Your task to perform on an android device: Open privacy settings Image 0: 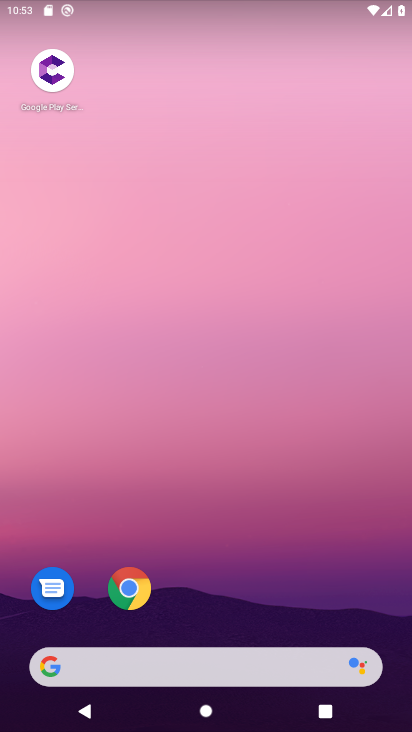
Step 0: press home button
Your task to perform on an android device: Open privacy settings Image 1: 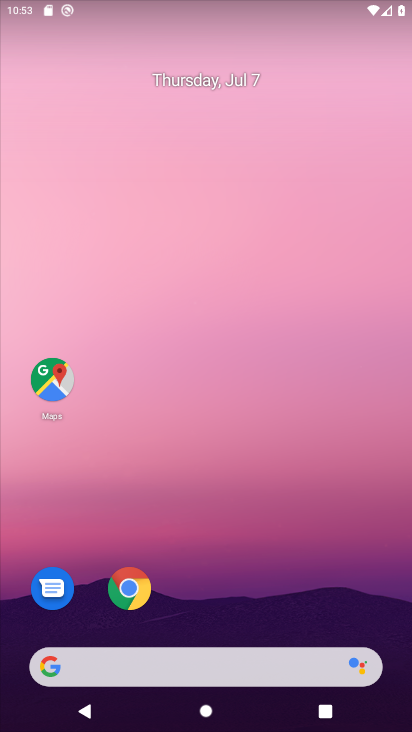
Step 1: drag from (154, 665) to (300, 84)
Your task to perform on an android device: Open privacy settings Image 2: 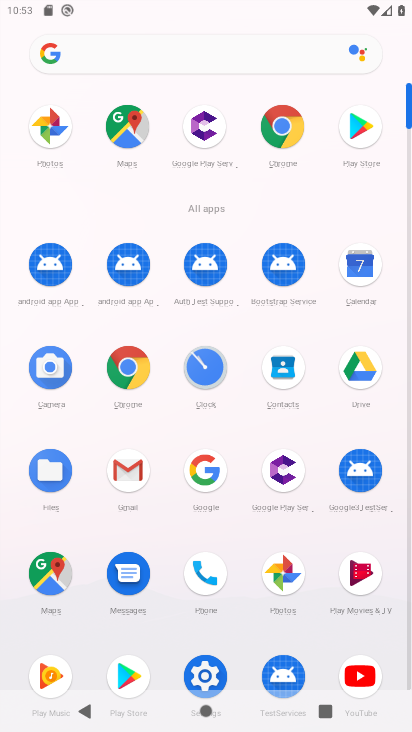
Step 2: click (209, 670)
Your task to perform on an android device: Open privacy settings Image 3: 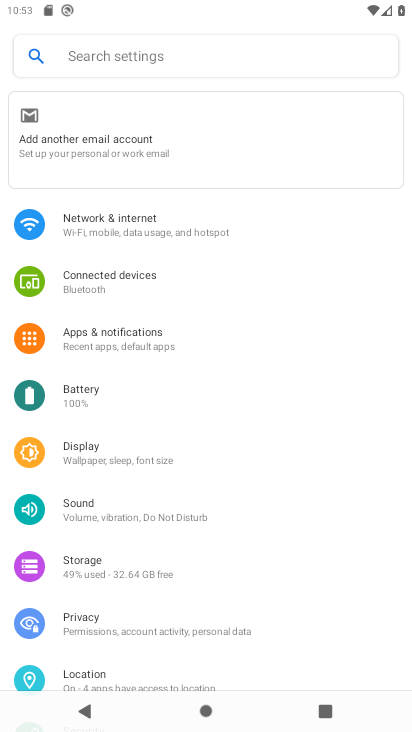
Step 3: click (114, 623)
Your task to perform on an android device: Open privacy settings Image 4: 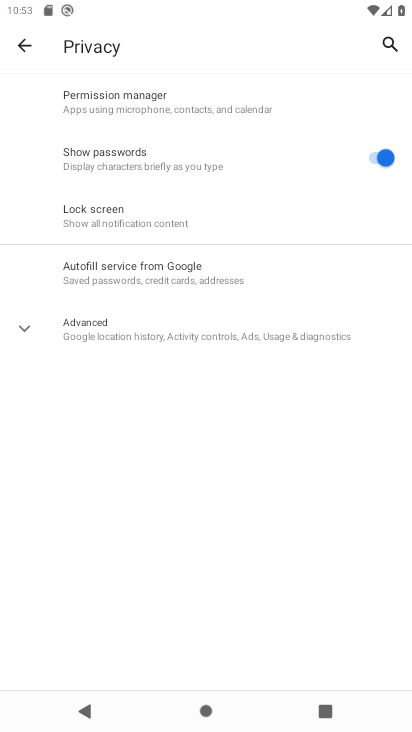
Step 4: task complete